Your task to perform on an android device: Go to sound settings Image 0: 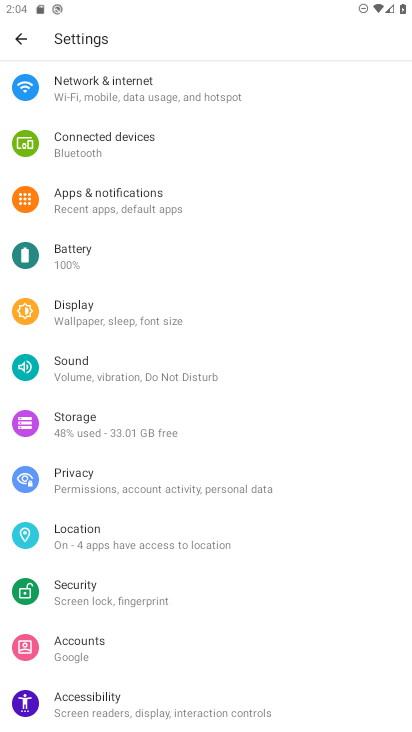
Step 0: click (54, 354)
Your task to perform on an android device: Go to sound settings Image 1: 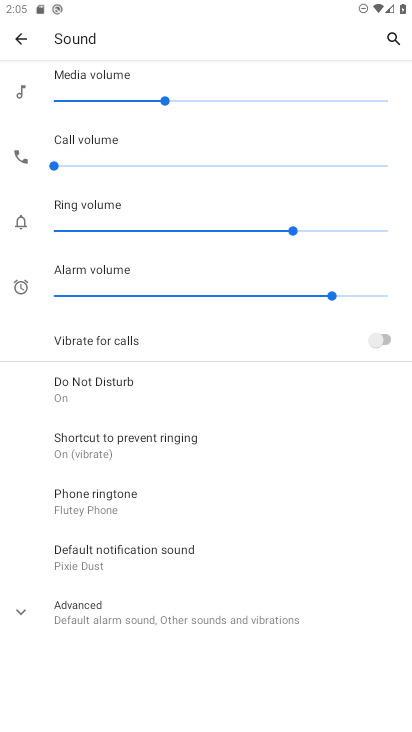
Step 1: task complete